Your task to perform on an android device: turn on notifications settings in the gmail app Image 0: 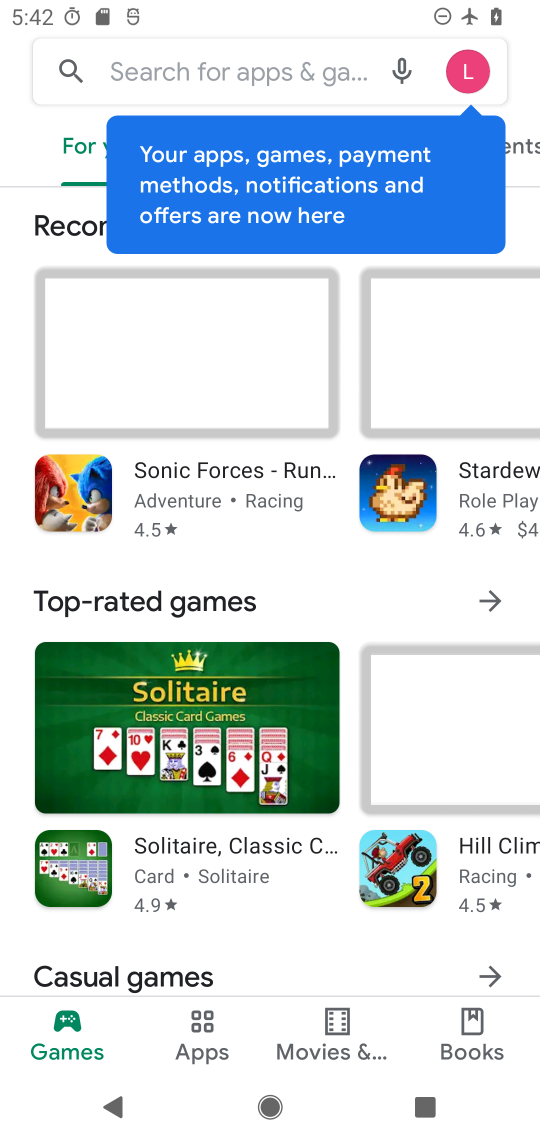
Step 0: press home button
Your task to perform on an android device: turn on notifications settings in the gmail app Image 1: 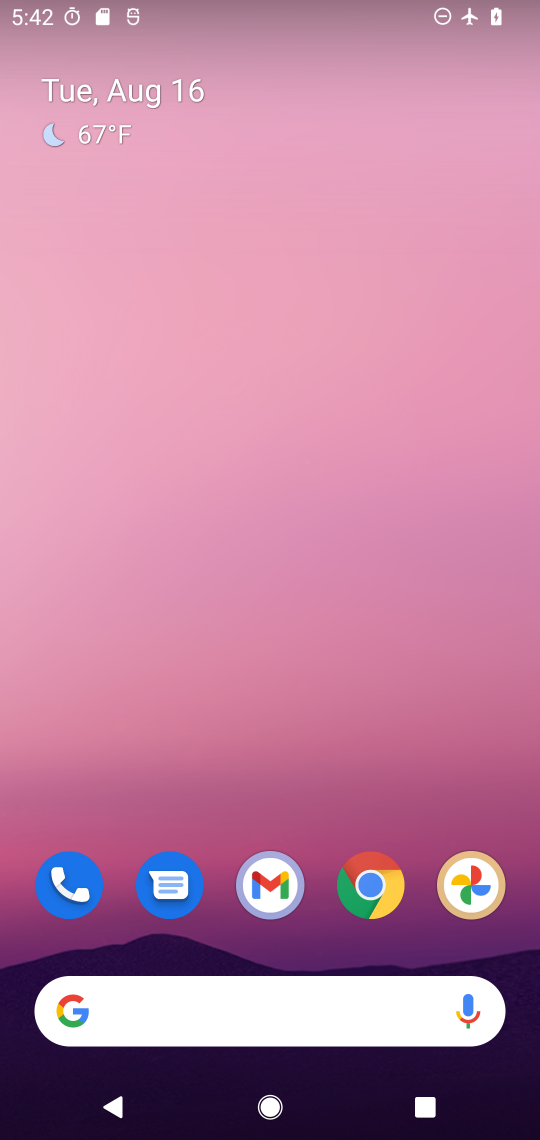
Step 1: drag from (229, 562) to (229, 306)
Your task to perform on an android device: turn on notifications settings in the gmail app Image 2: 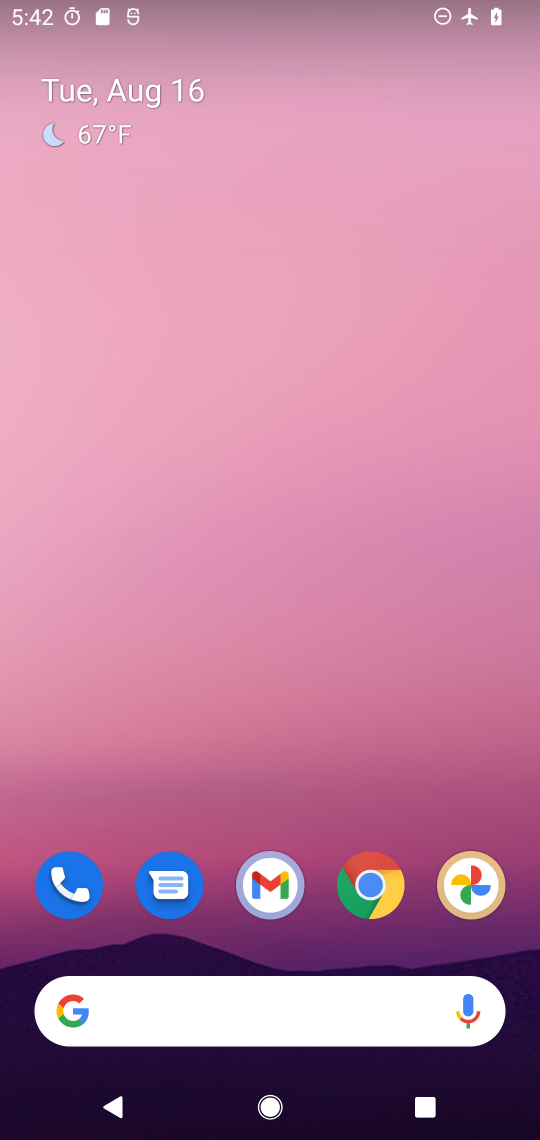
Step 2: drag from (246, 515) to (224, 256)
Your task to perform on an android device: turn on notifications settings in the gmail app Image 3: 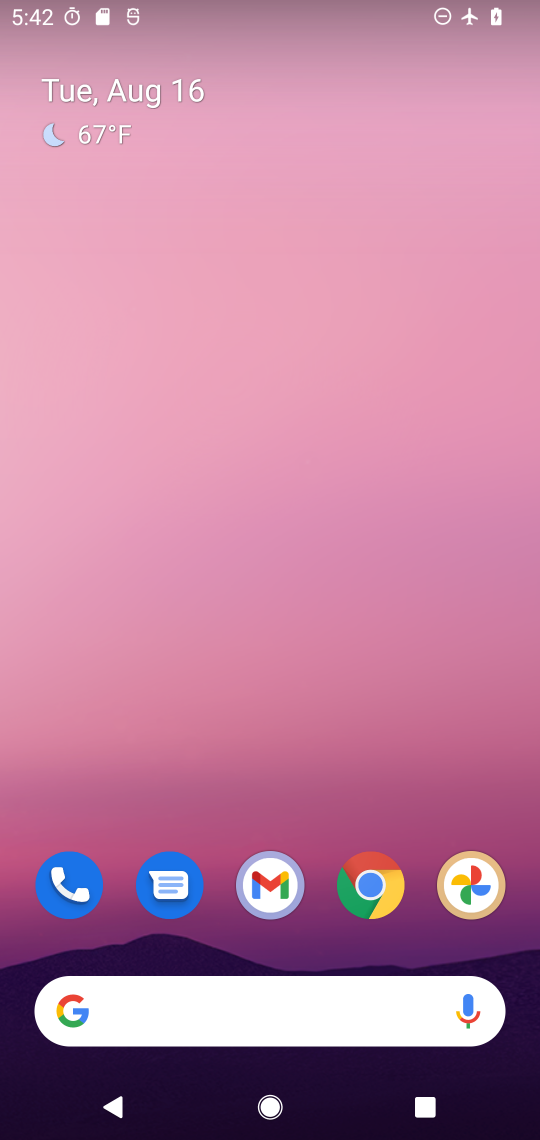
Step 3: drag from (290, 724) to (283, 372)
Your task to perform on an android device: turn on notifications settings in the gmail app Image 4: 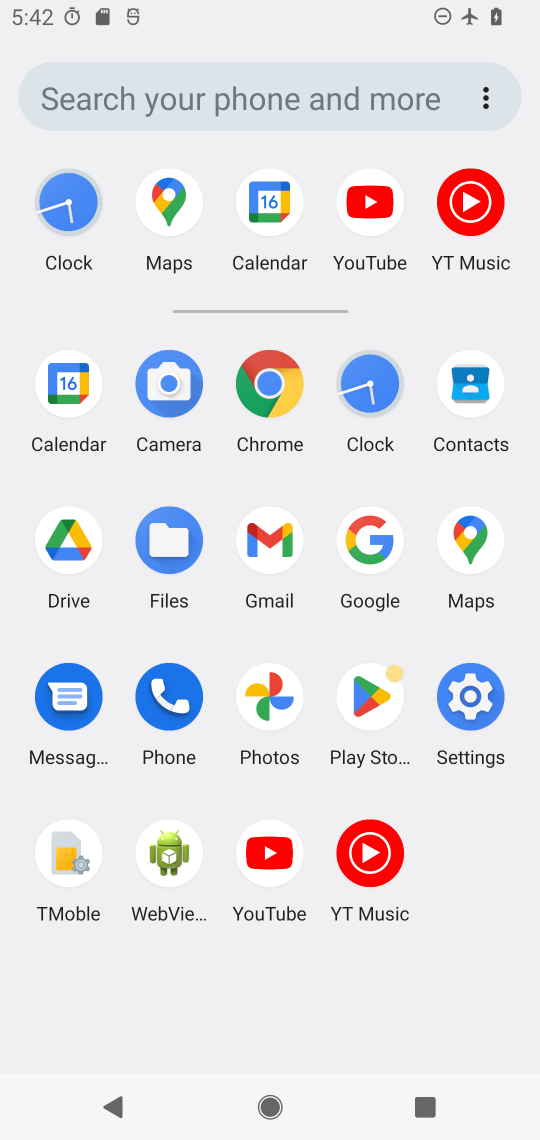
Step 4: click (271, 540)
Your task to perform on an android device: turn on notifications settings in the gmail app Image 5: 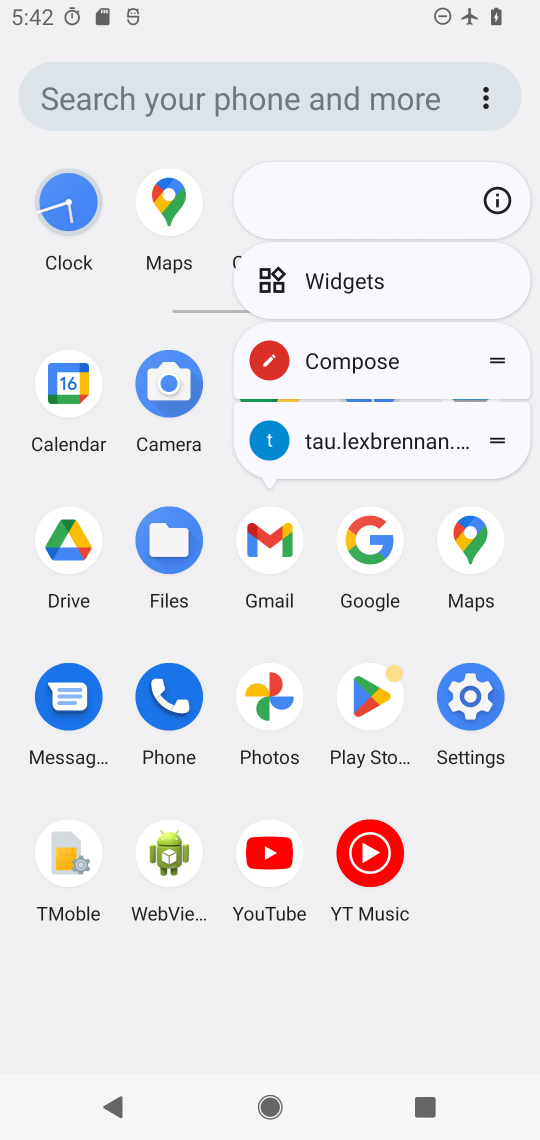
Step 5: click (271, 540)
Your task to perform on an android device: turn on notifications settings in the gmail app Image 6: 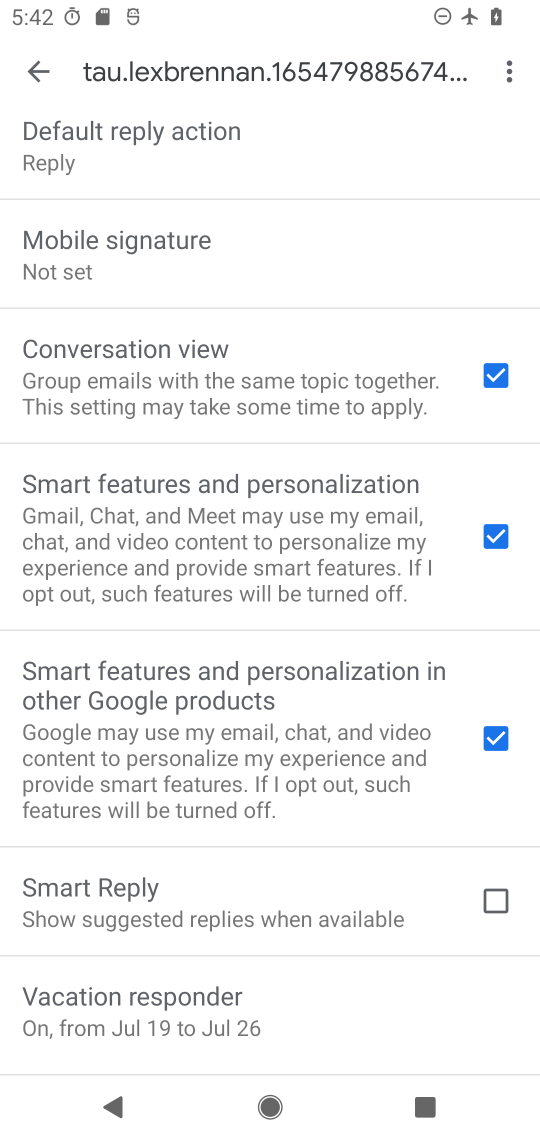
Step 6: click (22, 72)
Your task to perform on an android device: turn on notifications settings in the gmail app Image 7: 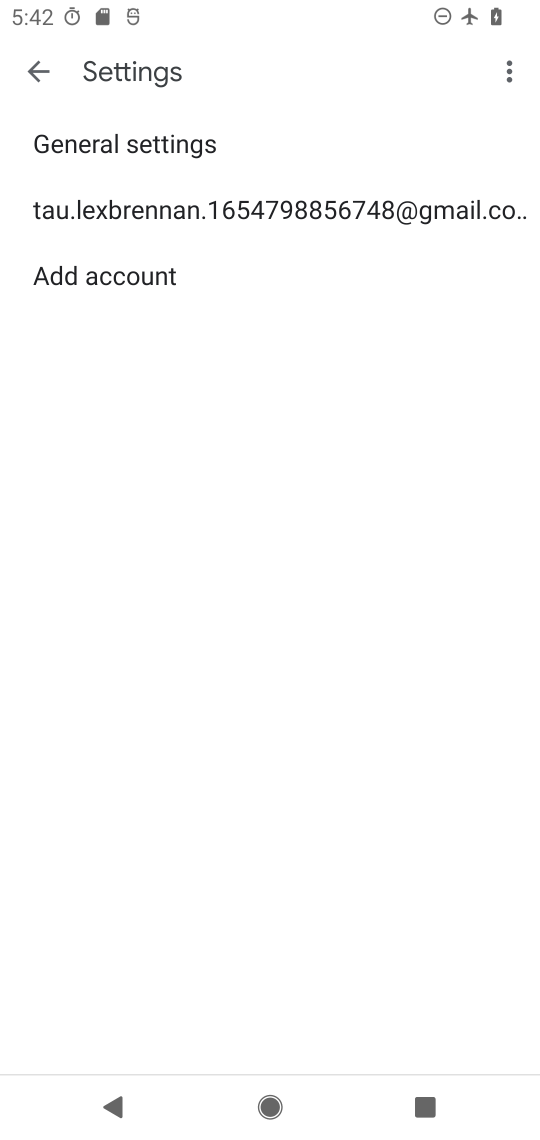
Step 7: click (109, 156)
Your task to perform on an android device: turn on notifications settings in the gmail app Image 8: 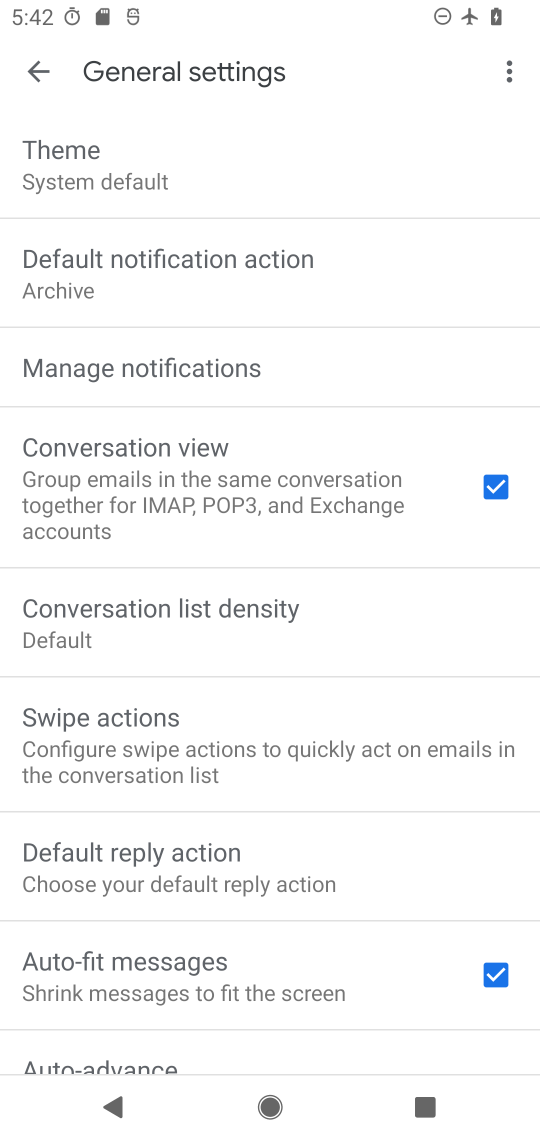
Step 8: drag from (189, 215) to (243, 860)
Your task to perform on an android device: turn on notifications settings in the gmail app Image 9: 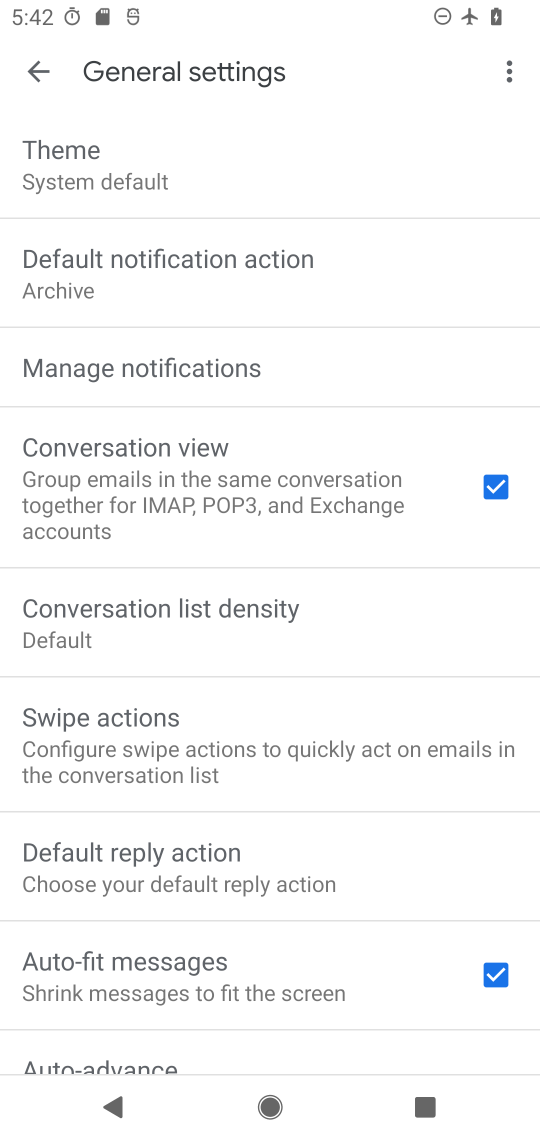
Step 9: click (51, 68)
Your task to perform on an android device: turn on notifications settings in the gmail app Image 10: 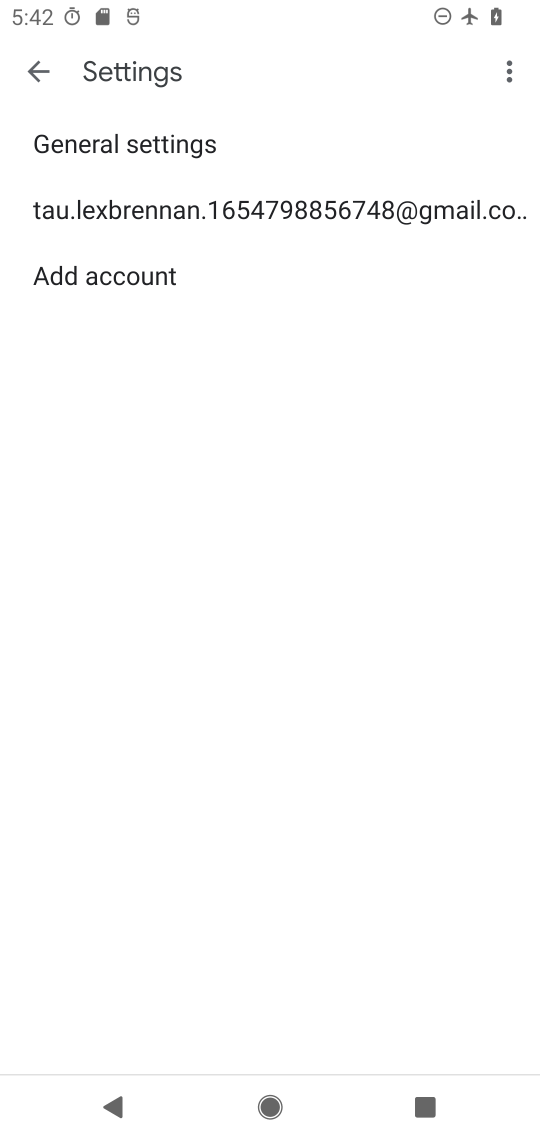
Step 10: click (131, 231)
Your task to perform on an android device: turn on notifications settings in the gmail app Image 11: 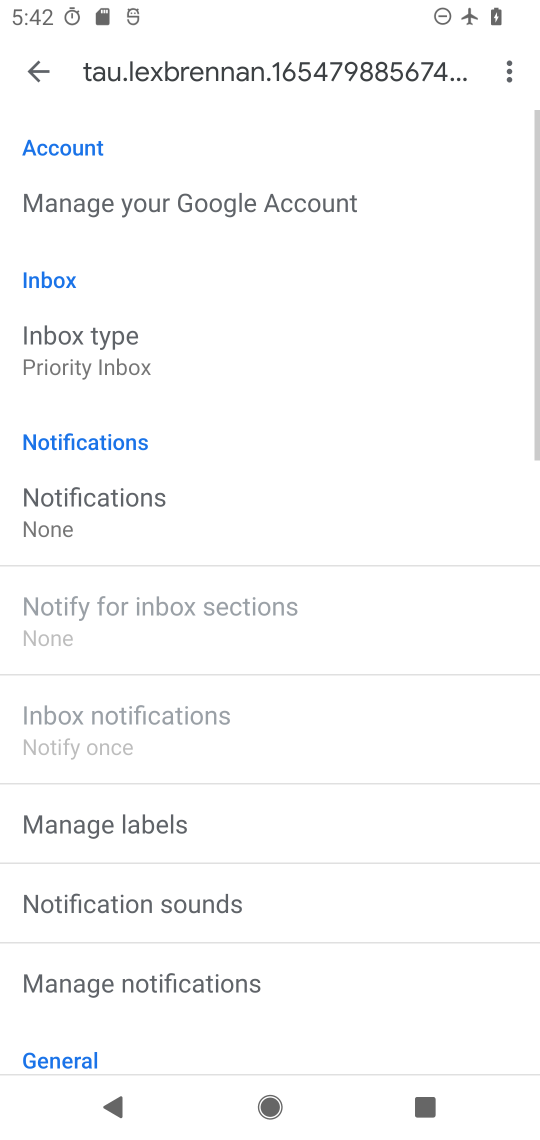
Step 11: click (116, 494)
Your task to perform on an android device: turn on notifications settings in the gmail app Image 12: 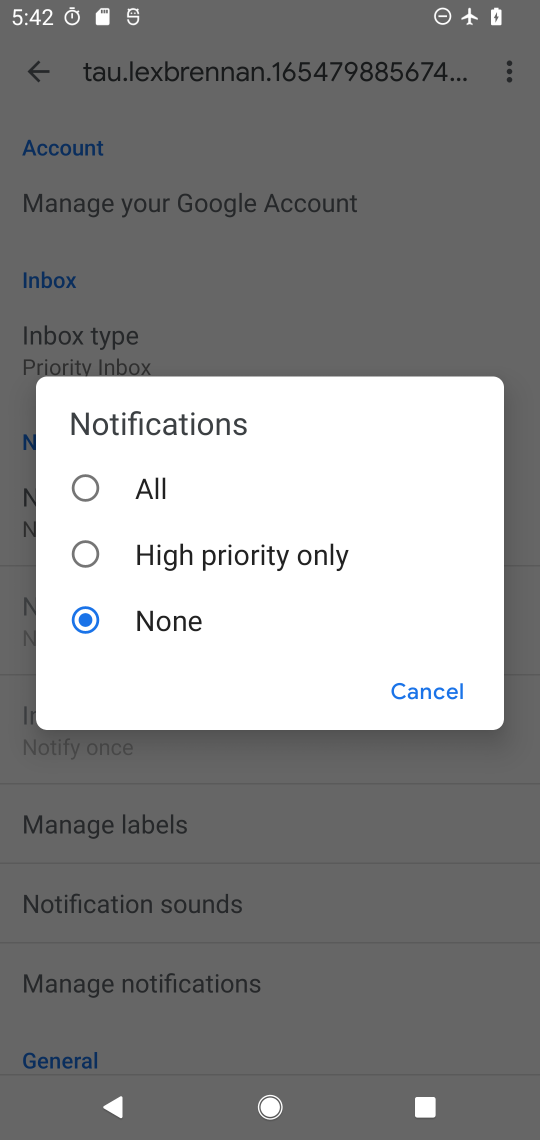
Step 12: click (137, 498)
Your task to perform on an android device: turn on notifications settings in the gmail app Image 13: 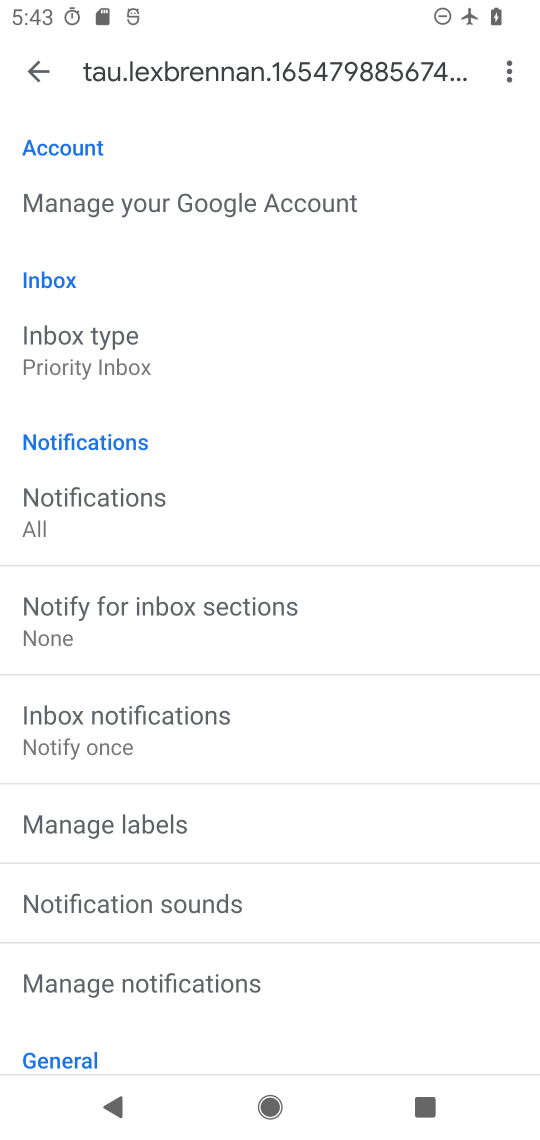
Step 13: task complete